Your task to perform on an android device: Go to ESPN.com Image 0: 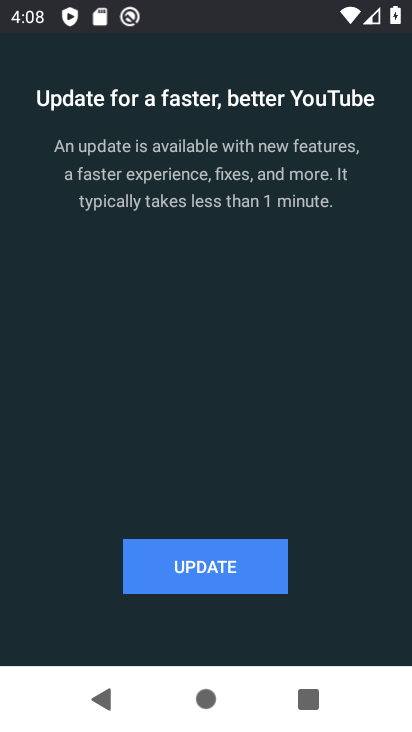
Step 0: press home button
Your task to perform on an android device: Go to ESPN.com Image 1: 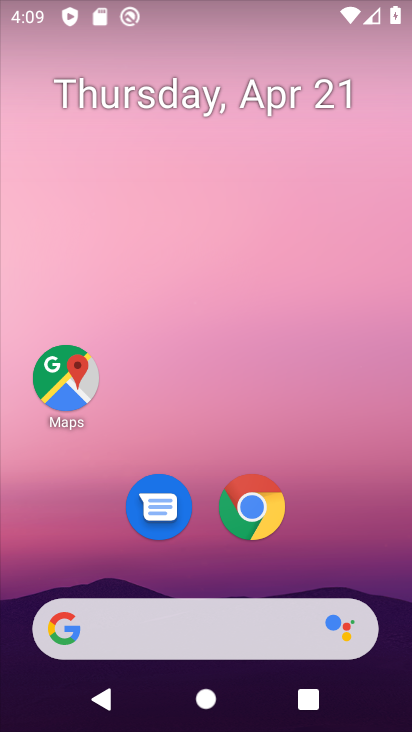
Step 1: click (240, 497)
Your task to perform on an android device: Go to ESPN.com Image 2: 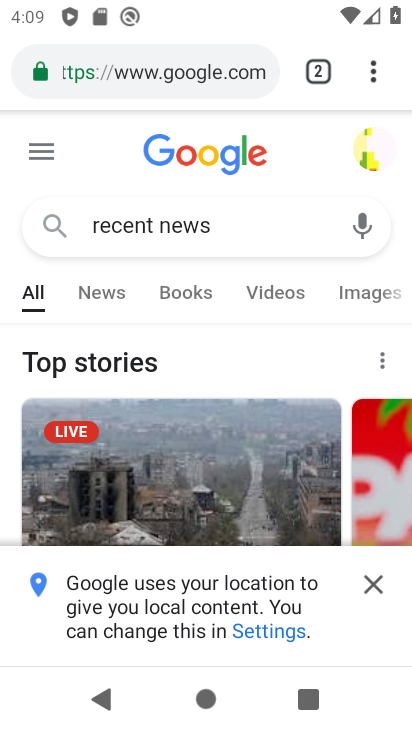
Step 2: click (323, 76)
Your task to perform on an android device: Go to ESPN.com Image 3: 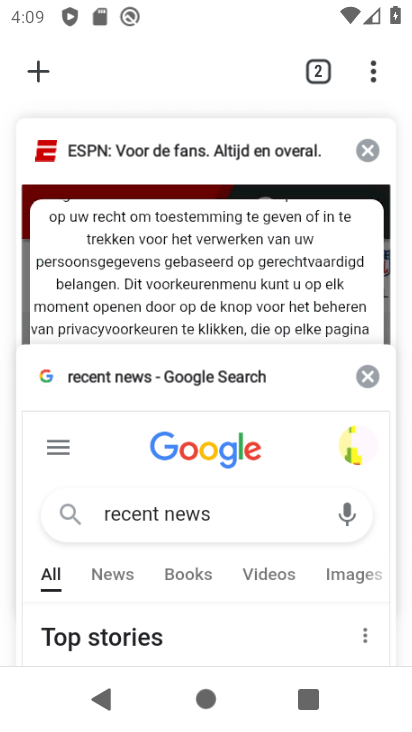
Step 3: click (29, 85)
Your task to perform on an android device: Go to ESPN.com Image 4: 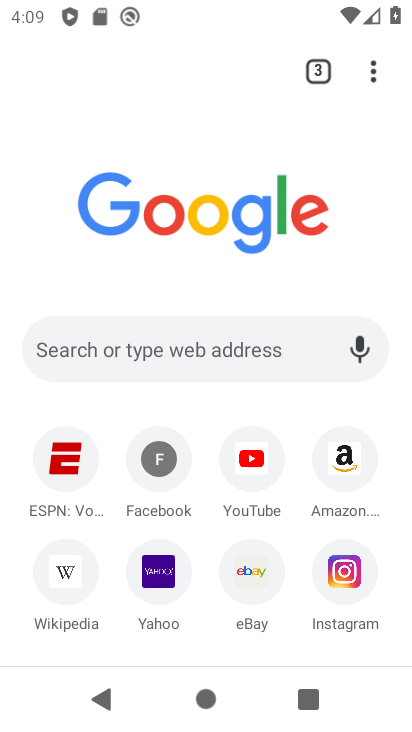
Step 4: click (69, 468)
Your task to perform on an android device: Go to ESPN.com Image 5: 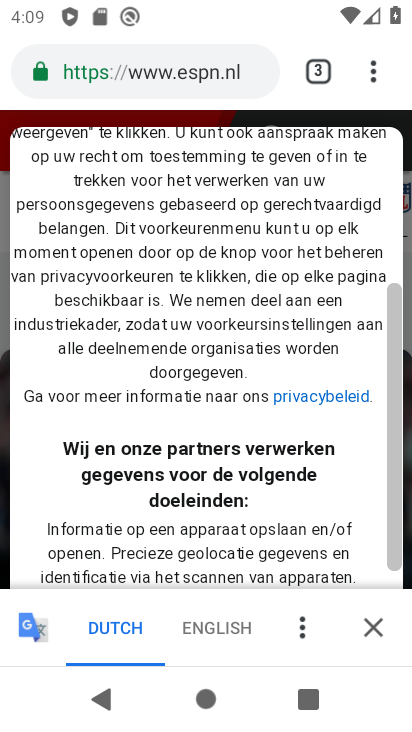
Step 5: task complete